Your task to perform on an android device: Open Google Maps and go to "Timeline" Image 0: 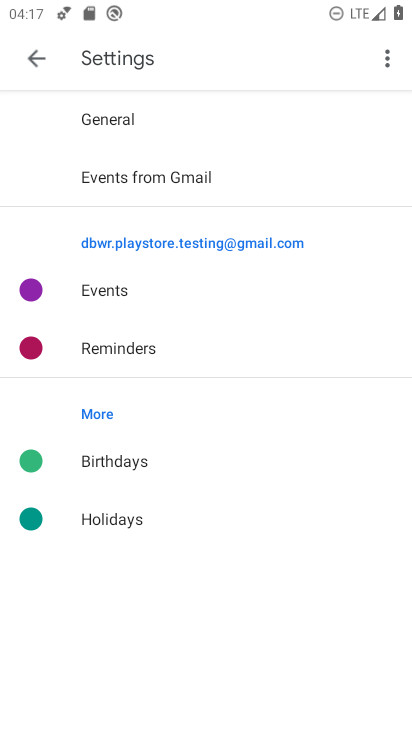
Step 0: press home button
Your task to perform on an android device: Open Google Maps and go to "Timeline" Image 1: 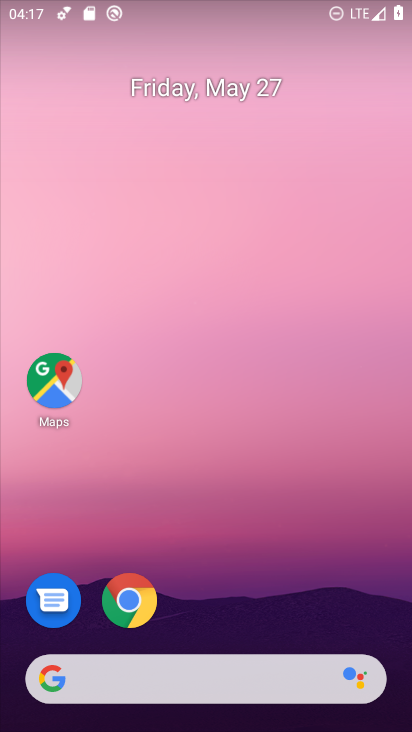
Step 1: drag from (177, 722) to (178, 100)
Your task to perform on an android device: Open Google Maps and go to "Timeline" Image 2: 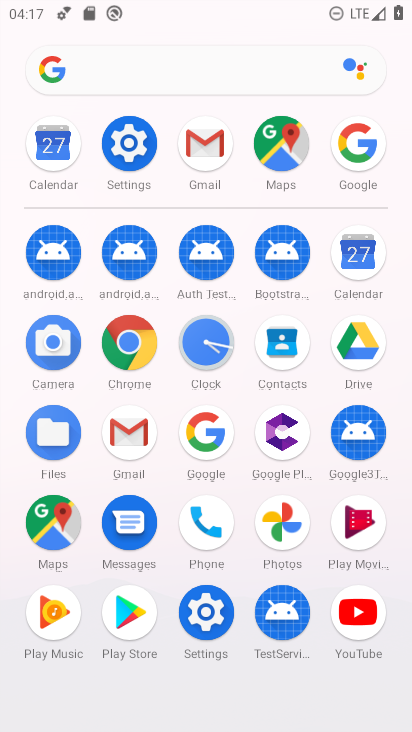
Step 2: click (59, 520)
Your task to perform on an android device: Open Google Maps and go to "Timeline" Image 3: 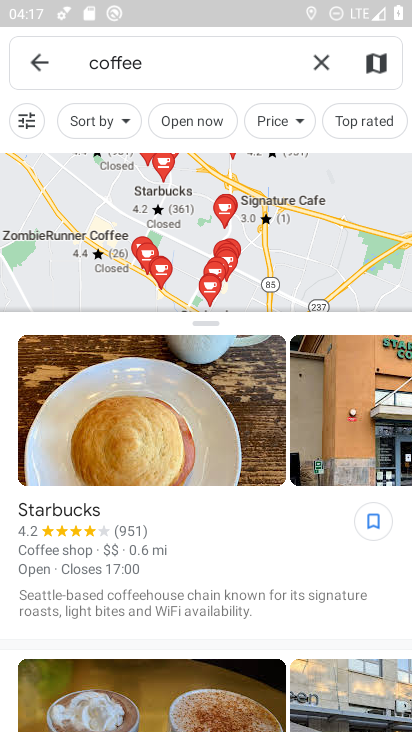
Step 3: click (41, 63)
Your task to perform on an android device: Open Google Maps and go to "Timeline" Image 4: 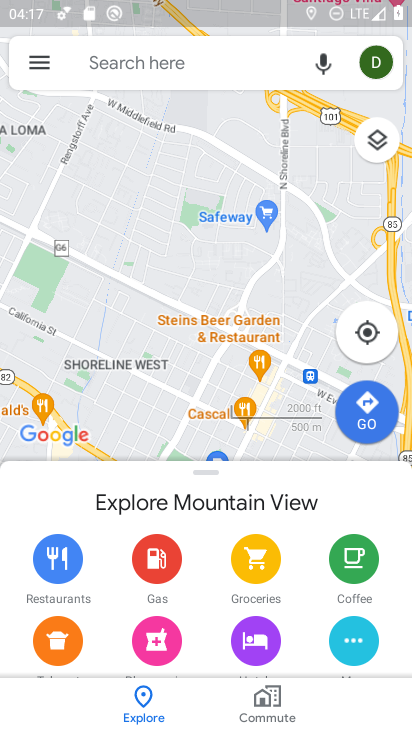
Step 4: click (34, 62)
Your task to perform on an android device: Open Google Maps and go to "Timeline" Image 5: 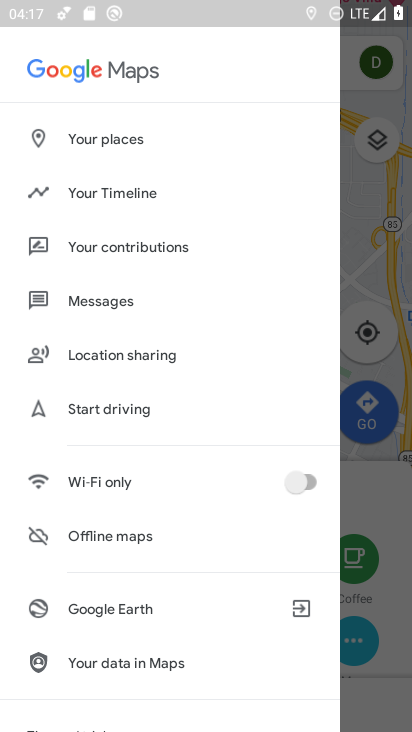
Step 5: click (114, 182)
Your task to perform on an android device: Open Google Maps and go to "Timeline" Image 6: 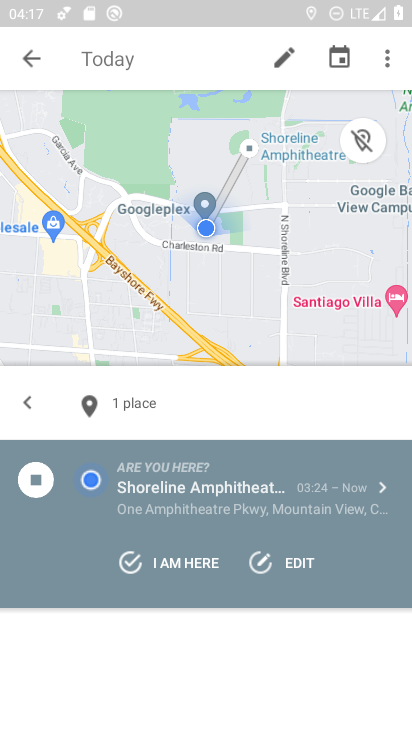
Step 6: task complete